Your task to perform on an android device: toggle location history Image 0: 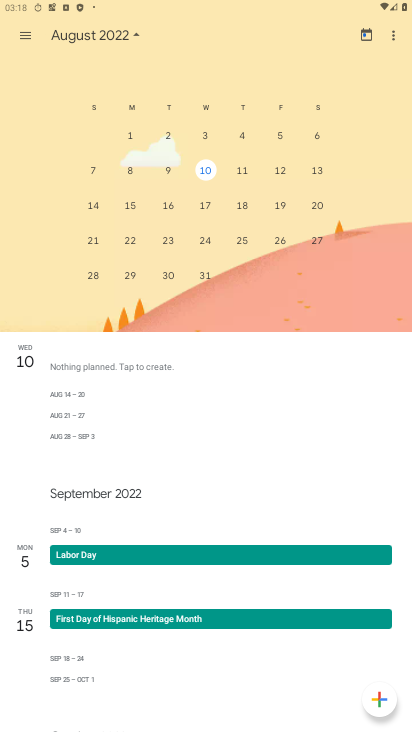
Step 0: drag from (260, 138) to (115, 6)
Your task to perform on an android device: toggle location history Image 1: 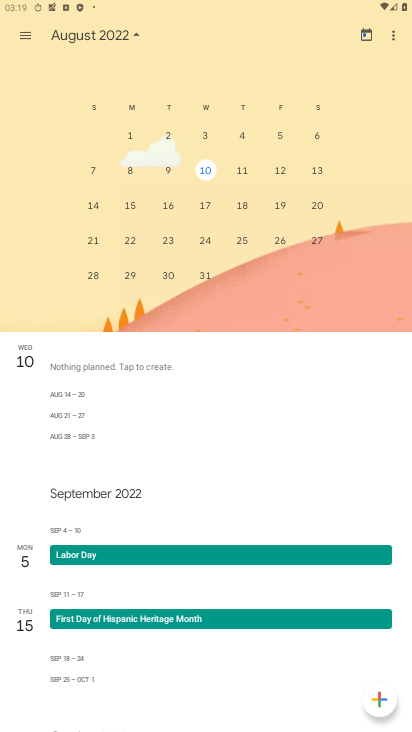
Step 1: press home button
Your task to perform on an android device: toggle location history Image 2: 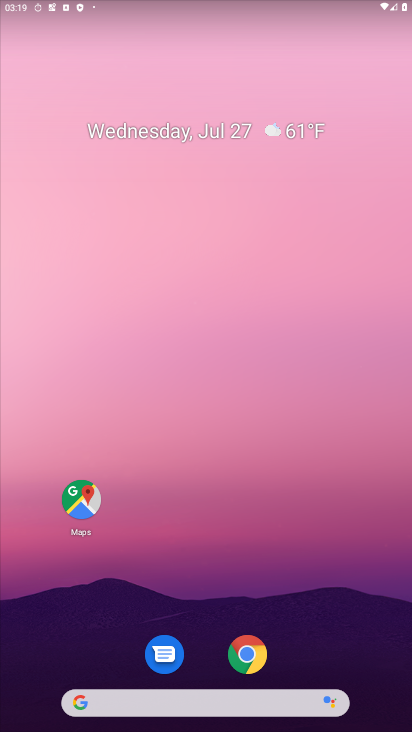
Step 2: drag from (263, 696) to (275, 133)
Your task to perform on an android device: toggle location history Image 3: 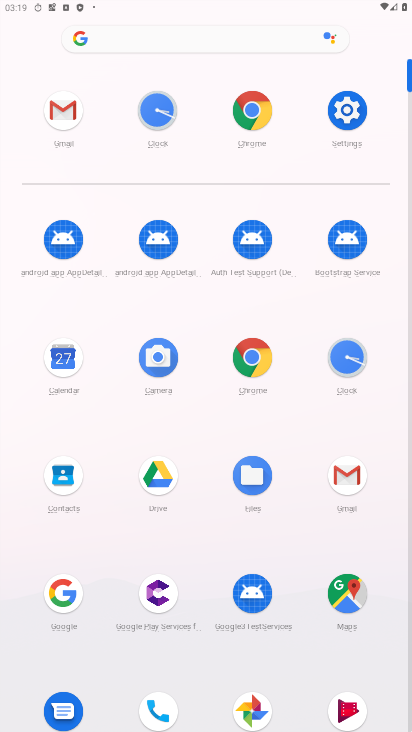
Step 3: click (348, 106)
Your task to perform on an android device: toggle location history Image 4: 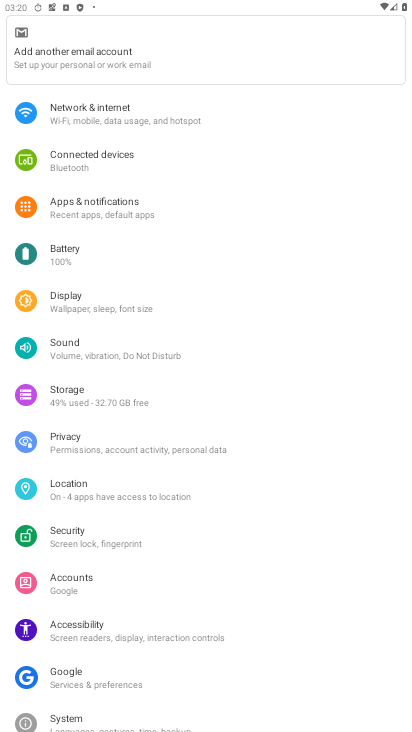
Step 4: click (142, 116)
Your task to perform on an android device: toggle location history Image 5: 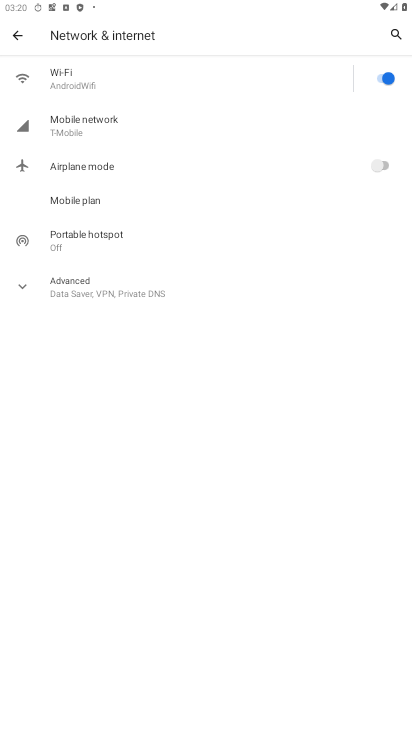
Step 5: press back button
Your task to perform on an android device: toggle location history Image 6: 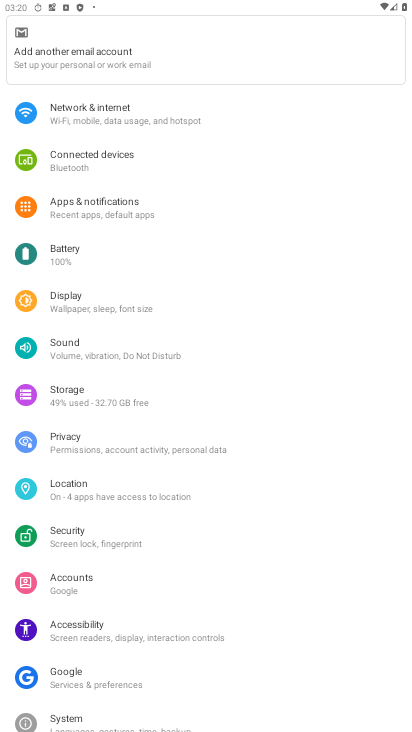
Step 6: click (85, 491)
Your task to perform on an android device: toggle location history Image 7: 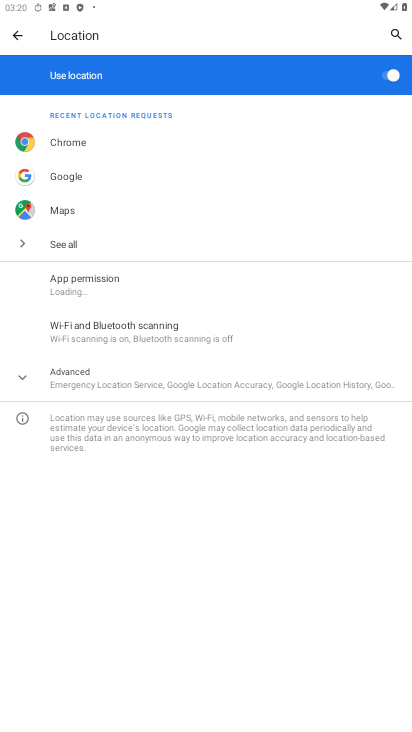
Step 7: click (164, 374)
Your task to perform on an android device: toggle location history Image 8: 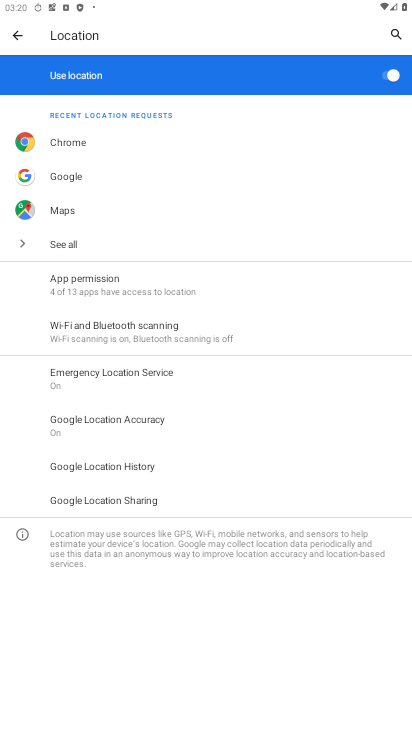
Step 8: click (105, 468)
Your task to perform on an android device: toggle location history Image 9: 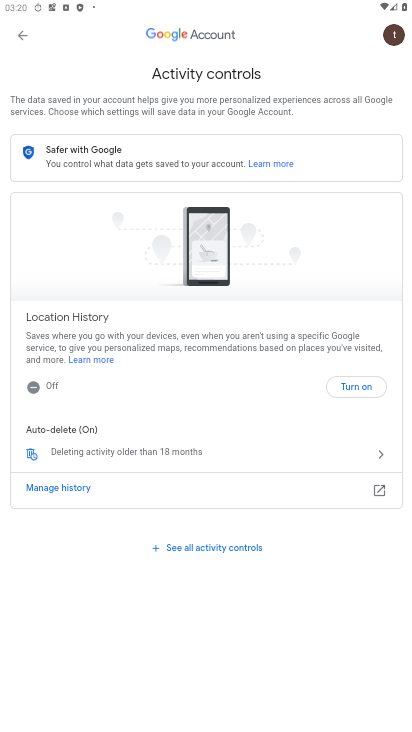
Step 9: click (363, 379)
Your task to perform on an android device: toggle location history Image 10: 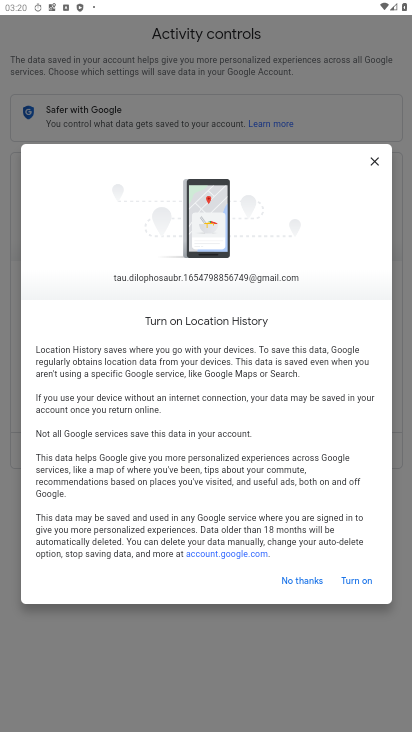
Step 10: click (348, 583)
Your task to perform on an android device: toggle location history Image 11: 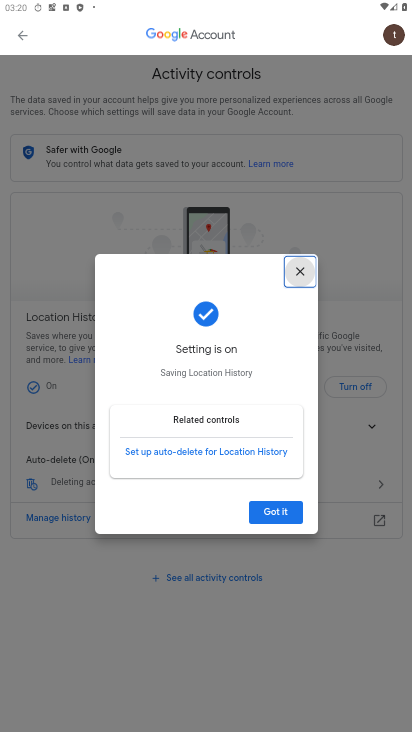
Step 11: task complete